Your task to perform on an android device: Open settings Image 0: 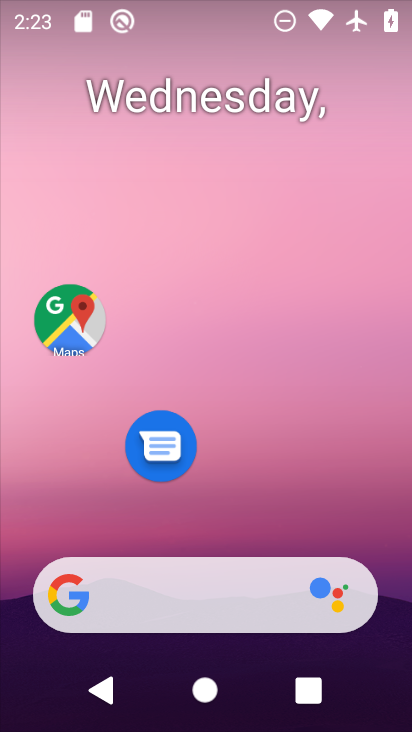
Step 0: drag from (283, 537) to (122, 13)
Your task to perform on an android device: Open settings Image 1: 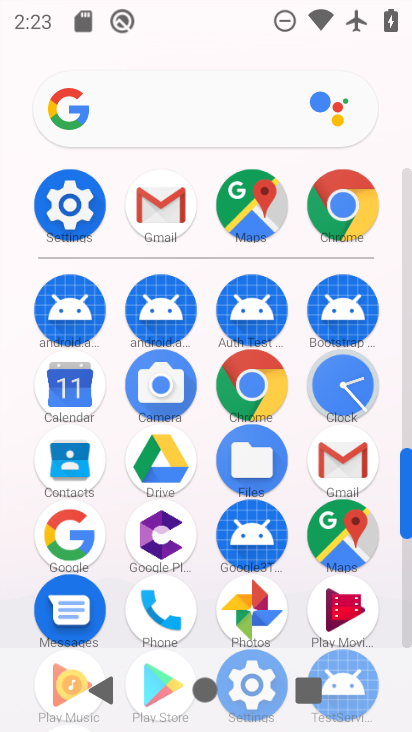
Step 1: click (62, 192)
Your task to perform on an android device: Open settings Image 2: 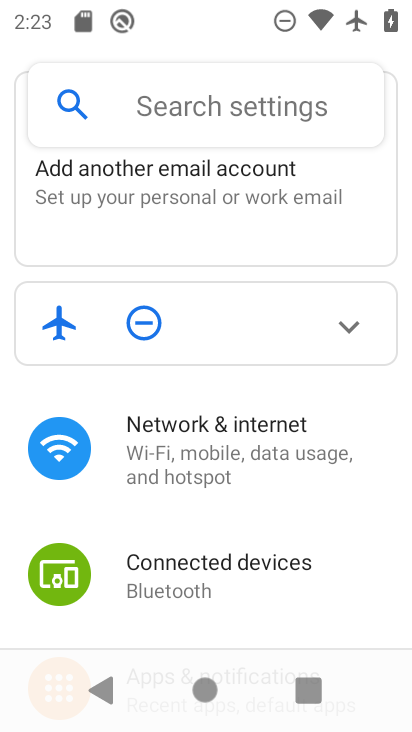
Step 2: click (261, 434)
Your task to perform on an android device: Open settings Image 3: 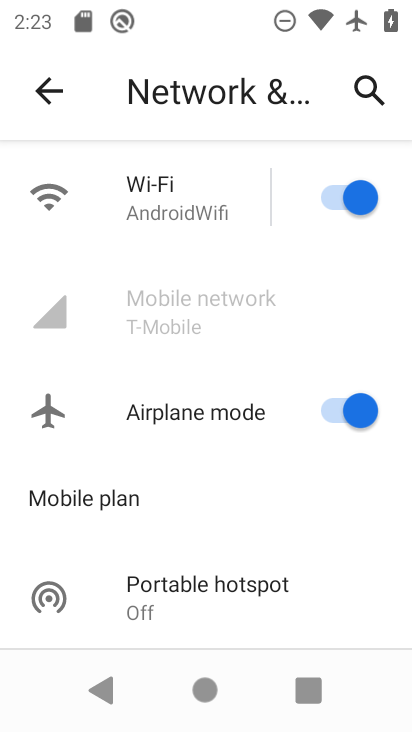
Step 3: click (352, 400)
Your task to perform on an android device: Open settings Image 4: 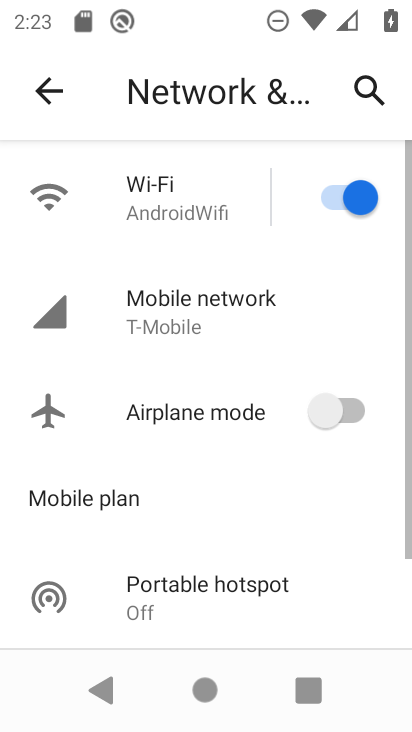
Step 4: task complete